Your task to perform on an android device: find snoozed emails in the gmail app Image 0: 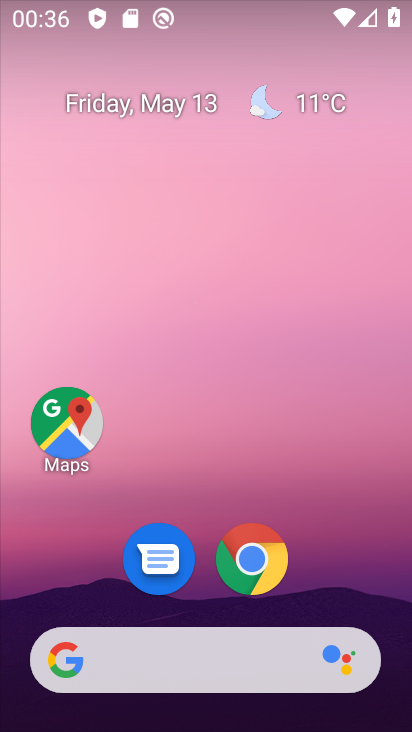
Step 0: drag from (204, 574) to (200, 153)
Your task to perform on an android device: find snoozed emails in the gmail app Image 1: 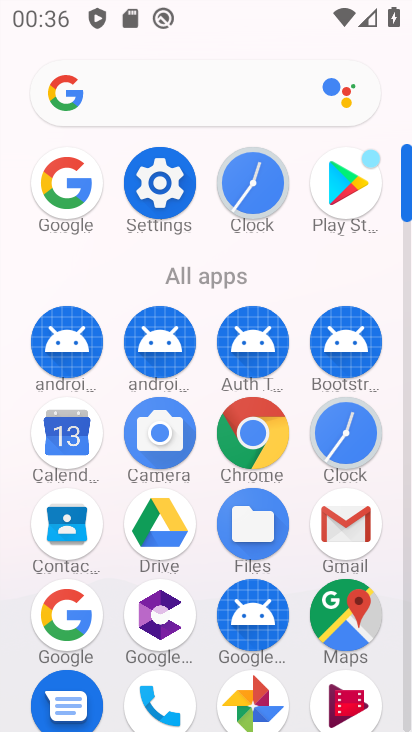
Step 1: click (331, 529)
Your task to perform on an android device: find snoozed emails in the gmail app Image 2: 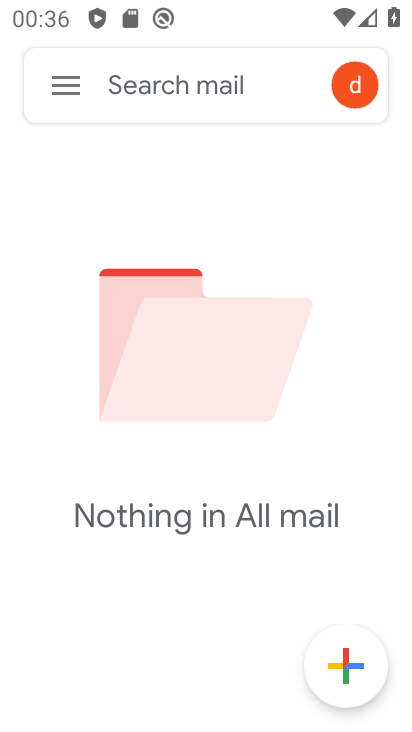
Step 2: click (59, 92)
Your task to perform on an android device: find snoozed emails in the gmail app Image 3: 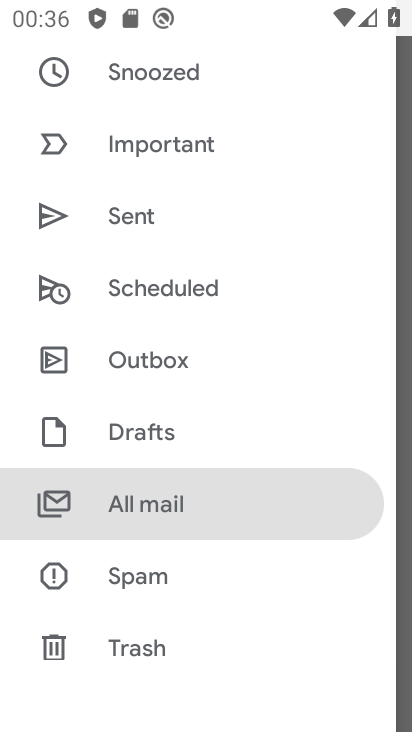
Step 3: drag from (215, 343) to (284, 552)
Your task to perform on an android device: find snoozed emails in the gmail app Image 4: 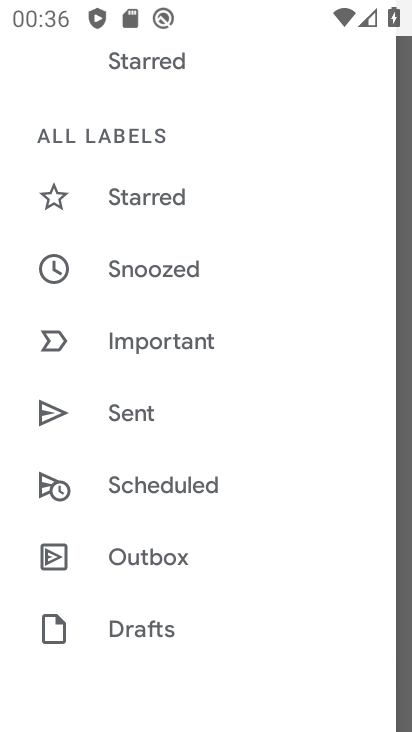
Step 4: drag from (217, 550) to (145, 475)
Your task to perform on an android device: find snoozed emails in the gmail app Image 5: 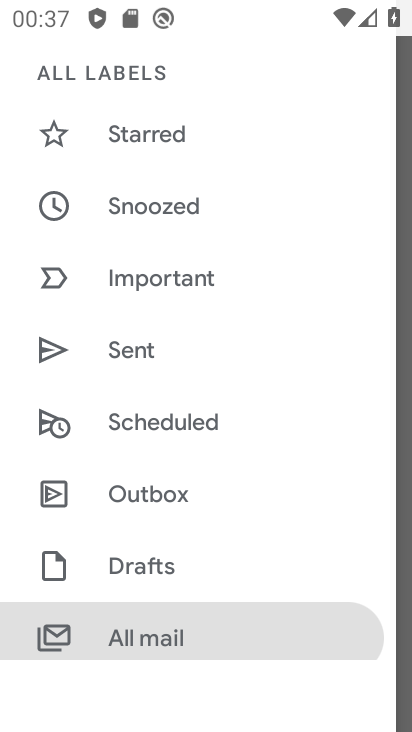
Step 5: click (306, 629)
Your task to perform on an android device: find snoozed emails in the gmail app Image 6: 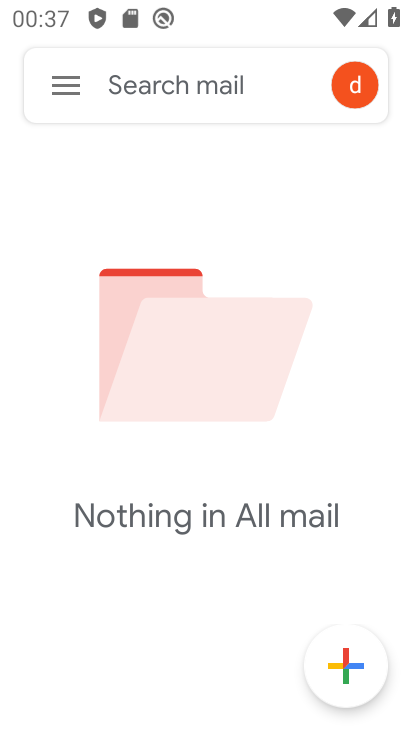
Step 6: task complete